Your task to perform on an android device: Open Google Maps Image 0: 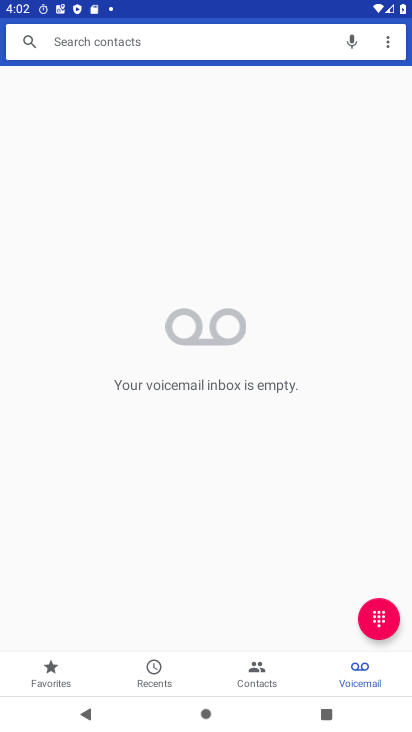
Step 0: press home button
Your task to perform on an android device: Open Google Maps Image 1: 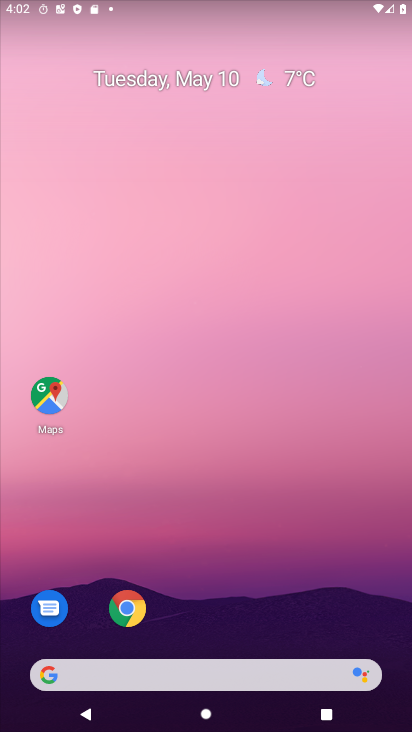
Step 1: click (48, 395)
Your task to perform on an android device: Open Google Maps Image 2: 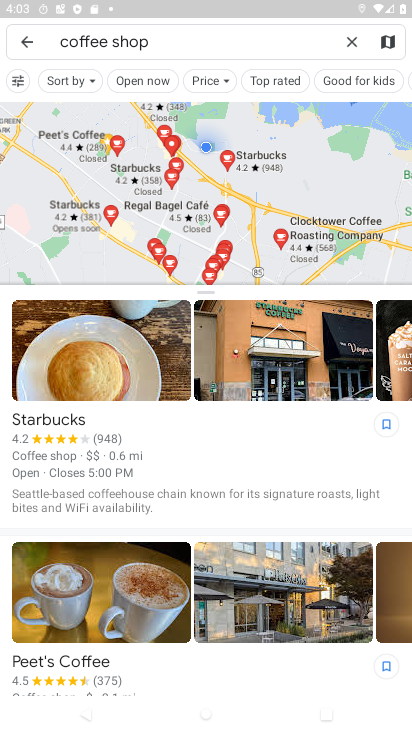
Step 2: click (348, 44)
Your task to perform on an android device: Open Google Maps Image 3: 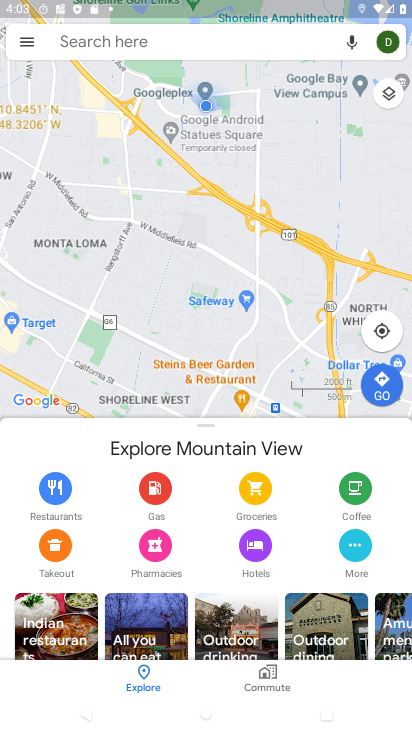
Step 3: task complete